Your task to perform on an android device: all mails in gmail Image 0: 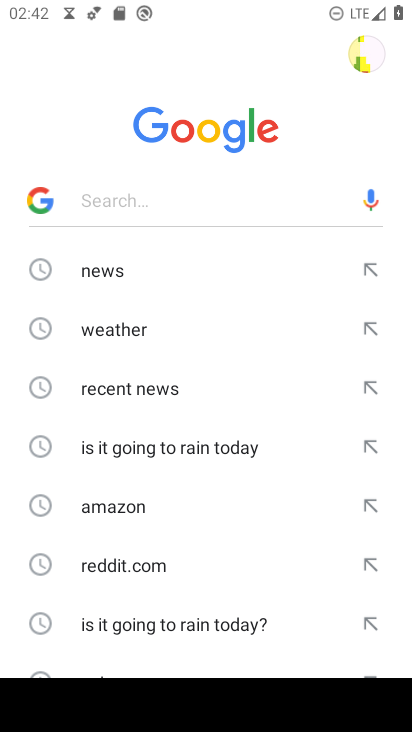
Step 0: press home button
Your task to perform on an android device: all mails in gmail Image 1: 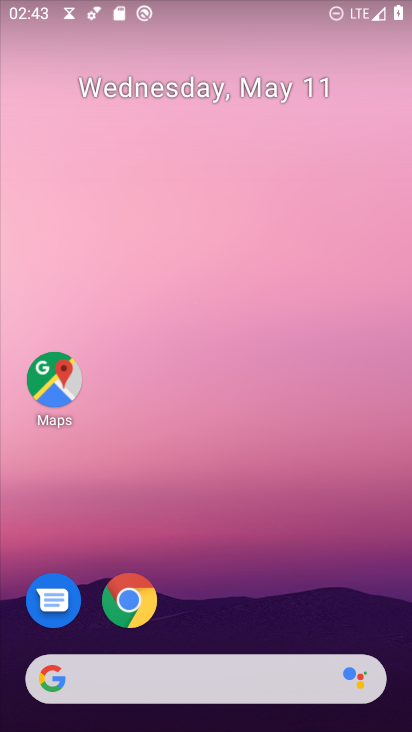
Step 1: drag from (241, 614) to (288, 258)
Your task to perform on an android device: all mails in gmail Image 2: 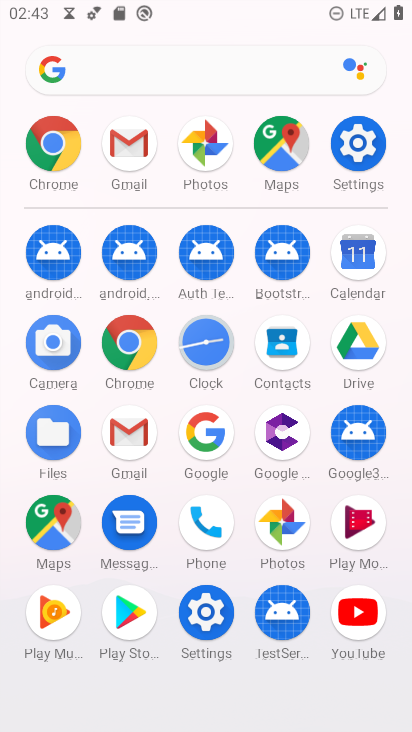
Step 2: click (119, 143)
Your task to perform on an android device: all mails in gmail Image 3: 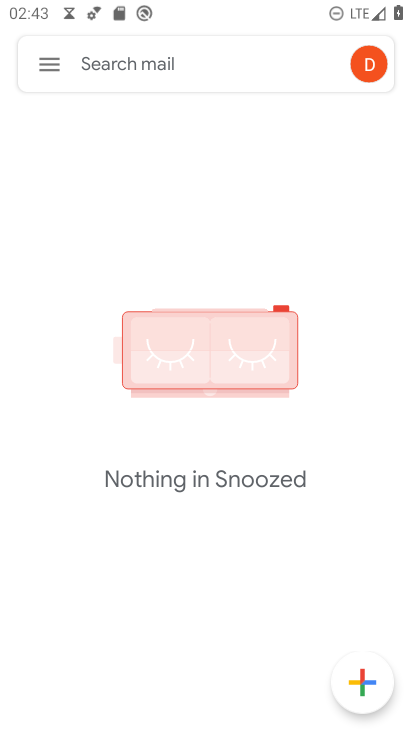
Step 3: click (56, 55)
Your task to perform on an android device: all mails in gmail Image 4: 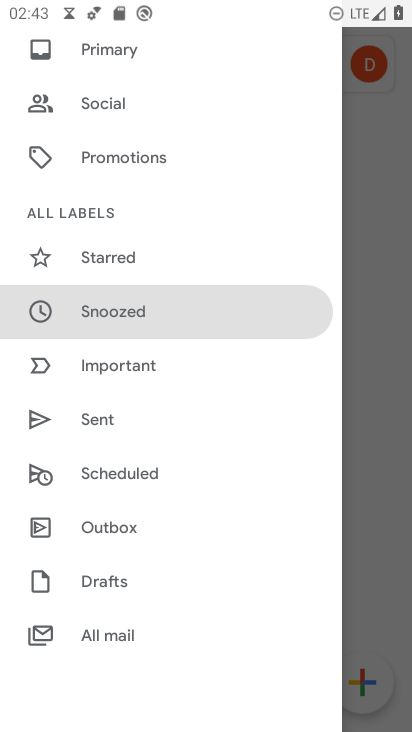
Step 4: click (118, 629)
Your task to perform on an android device: all mails in gmail Image 5: 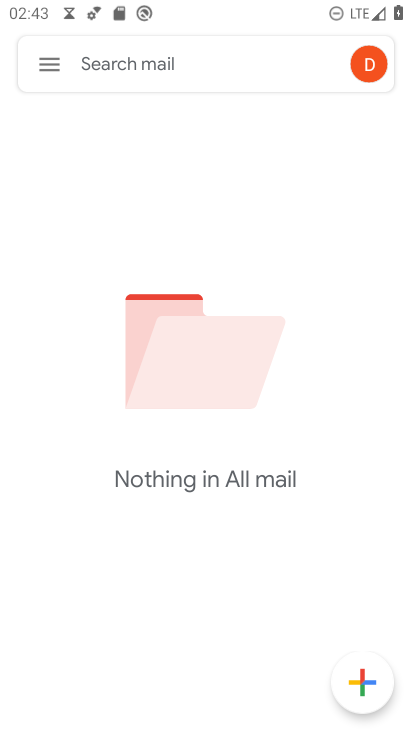
Step 5: task complete